Your task to perform on an android device: Go to notification settings Image 0: 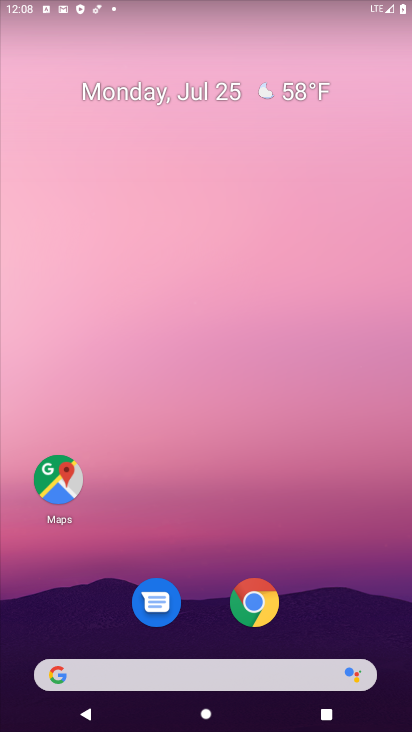
Step 0: drag from (195, 586) to (187, 110)
Your task to perform on an android device: Go to notification settings Image 1: 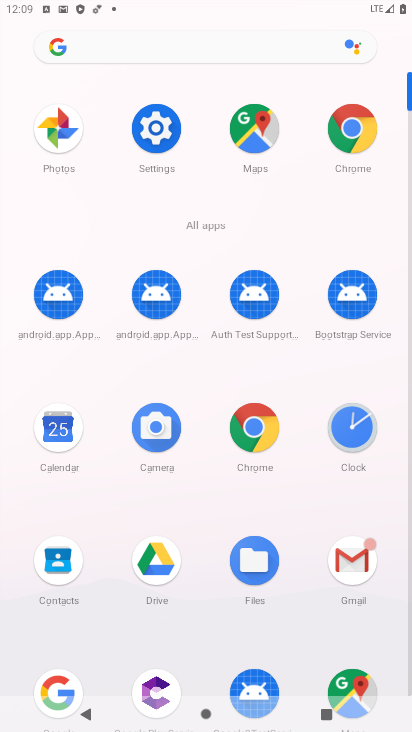
Step 1: click (161, 143)
Your task to perform on an android device: Go to notification settings Image 2: 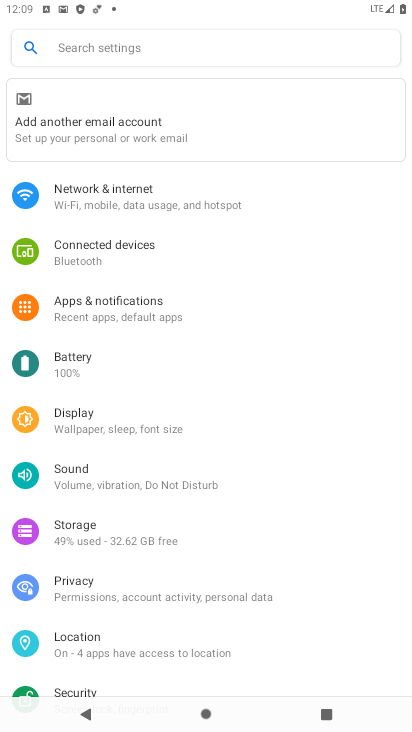
Step 2: click (131, 309)
Your task to perform on an android device: Go to notification settings Image 3: 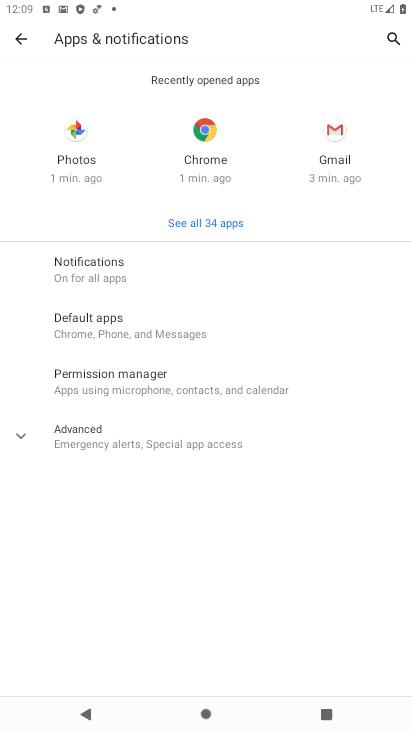
Step 3: click (114, 285)
Your task to perform on an android device: Go to notification settings Image 4: 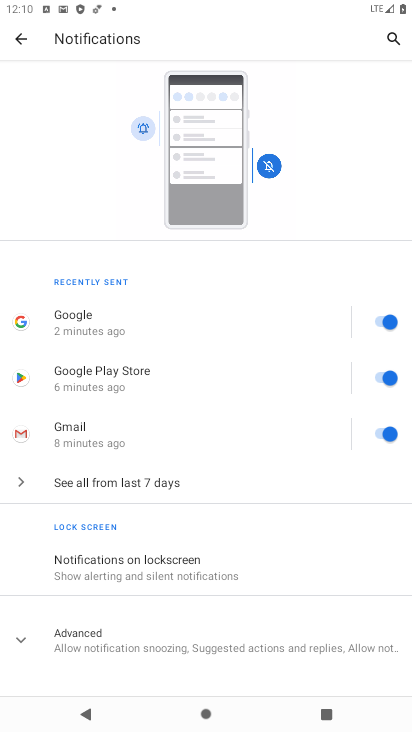
Step 4: task complete